Your task to perform on an android device: toggle improve location accuracy Image 0: 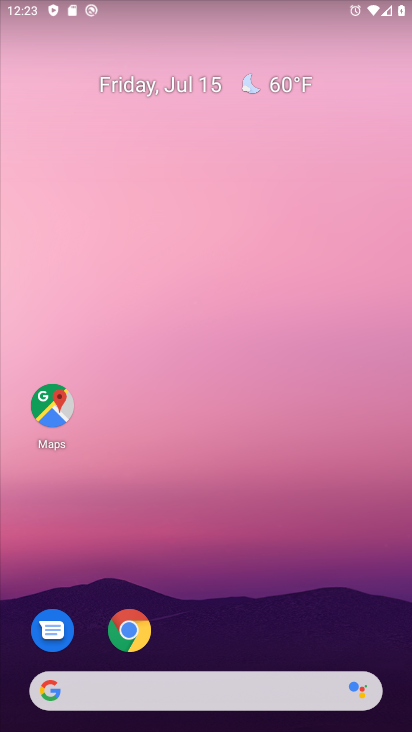
Step 0: drag from (229, 598) to (229, 104)
Your task to perform on an android device: toggle improve location accuracy Image 1: 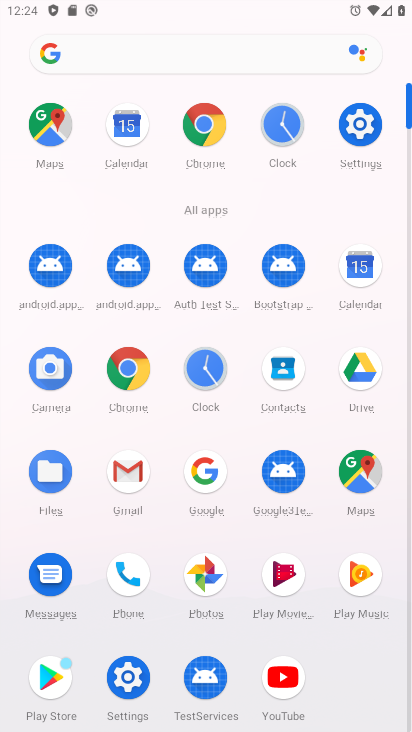
Step 1: click (359, 163)
Your task to perform on an android device: toggle improve location accuracy Image 2: 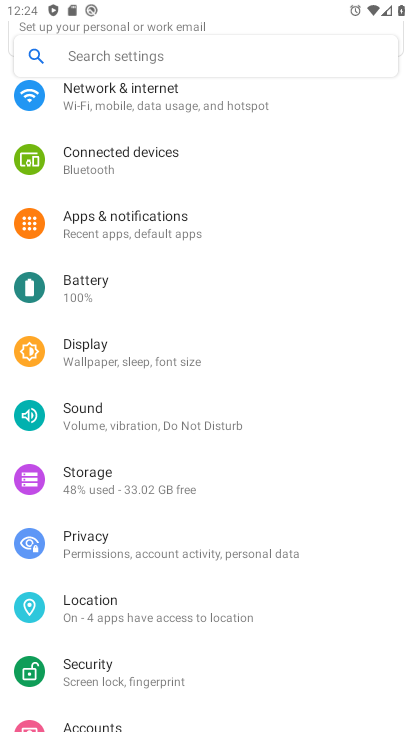
Step 2: click (98, 608)
Your task to perform on an android device: toggle improve location accuracy Image 3: 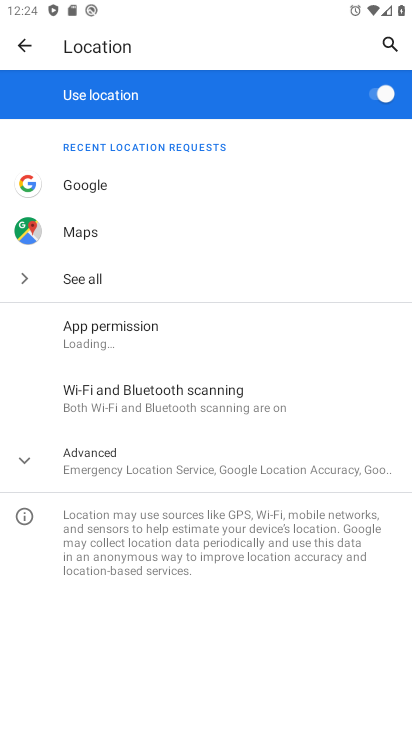
Step 3: click (98, 472)
Your task to perform on an android device: toggle improve location accuracy Image 4: 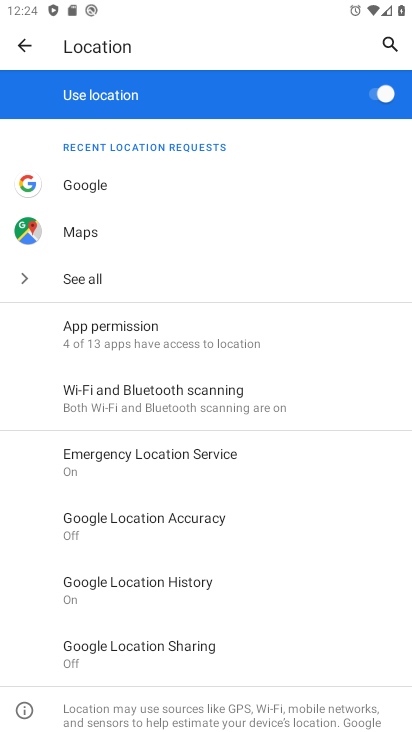
Step 4: click (139, 531)
Your task to perform on an android device: toggle improve location accuracy Image 5: 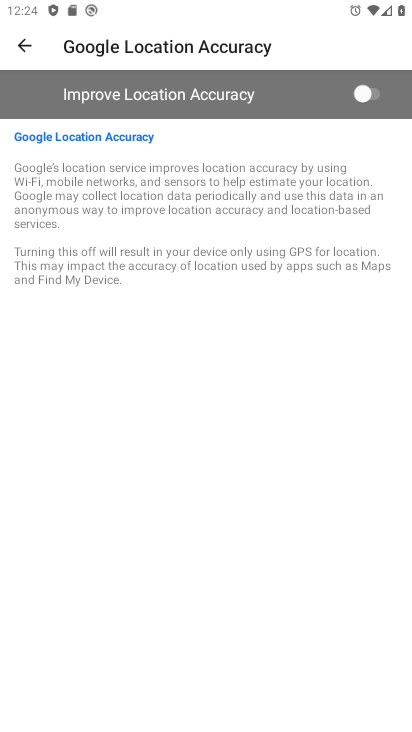
Step 5: click (378, 85)
Your task to perform on an android device: toggle improve location accuracy Image 6: 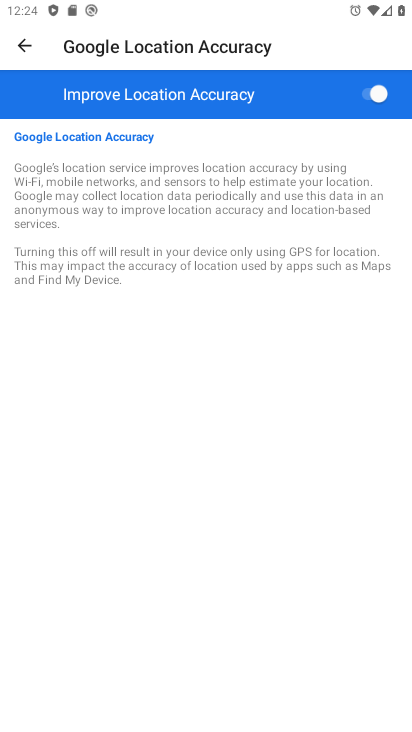
Step 6: task complete